Your task to perform on an android device: Do I have any events tomorrow? Image 0: 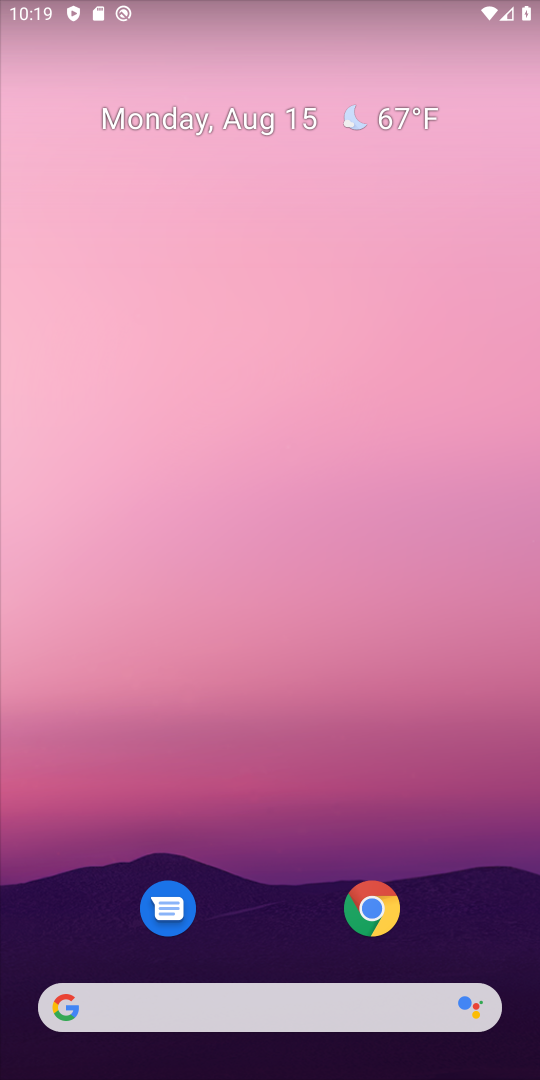
Step 0: click (259, 130)
Your task to perform on an android device: Do I have any events tomorrow? Image 1: 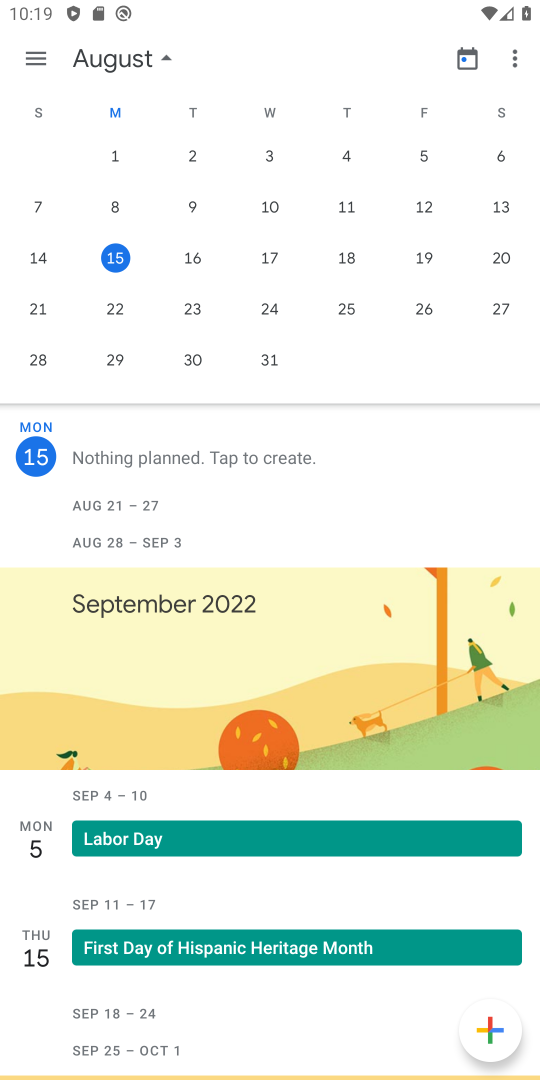
Step 1: click (201, 259)
Your task to perform on an android device: Do I have any events tomorrow? Image 2: 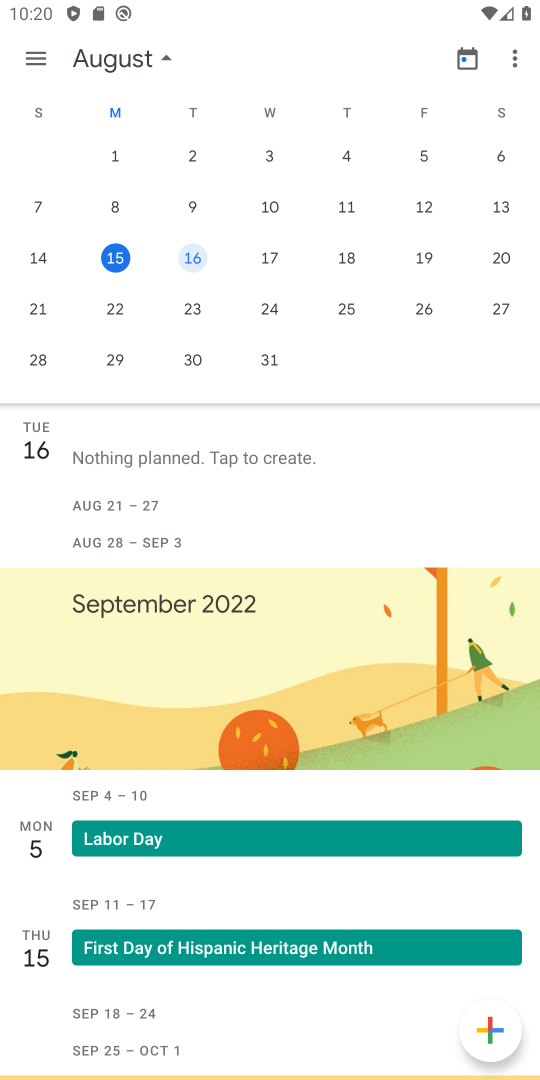
Step 2: task complete